Your task to perform on an android device: turn off location Image 0: 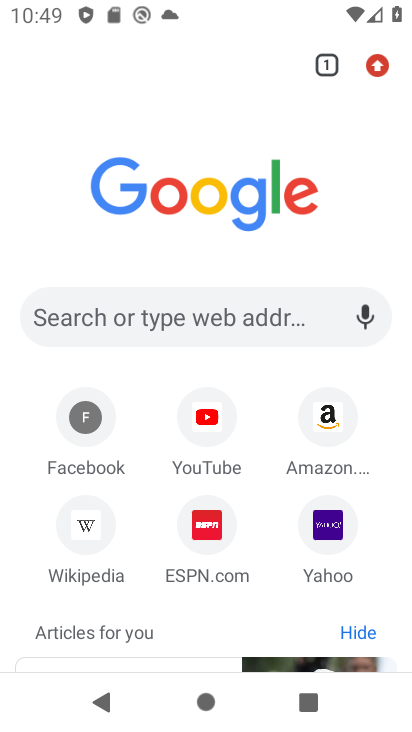
Step 0: press home button
Your task to perform on an android device: turn off location Image 1: 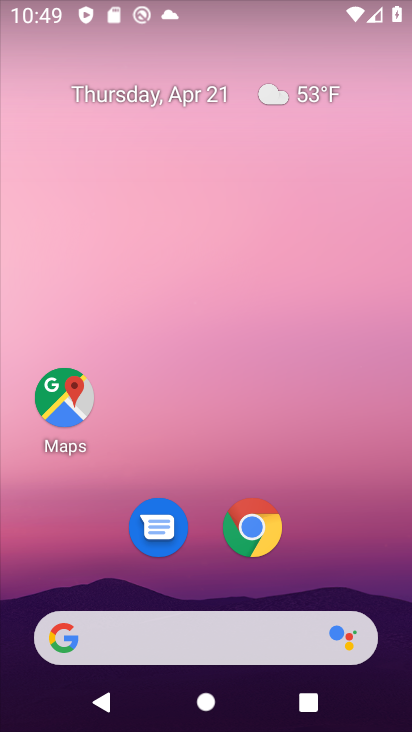
Step 1: drag from (340, 550) to (351, 164)
Your task to perform on an android device: turn off location Image 2: 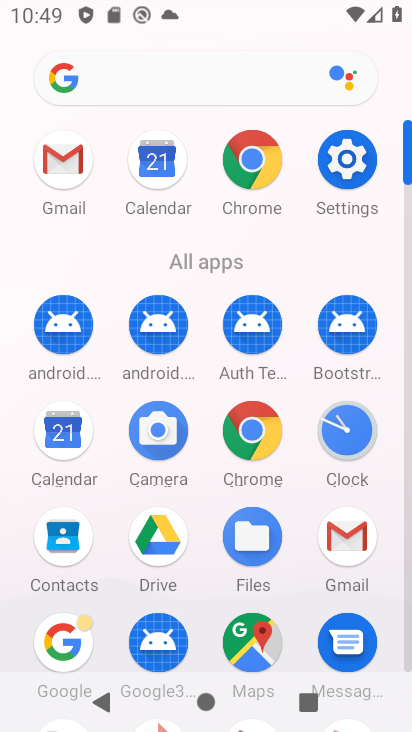
Step 2: click (368, 157)
Your task to perform on an android device: turn off location Image 3: 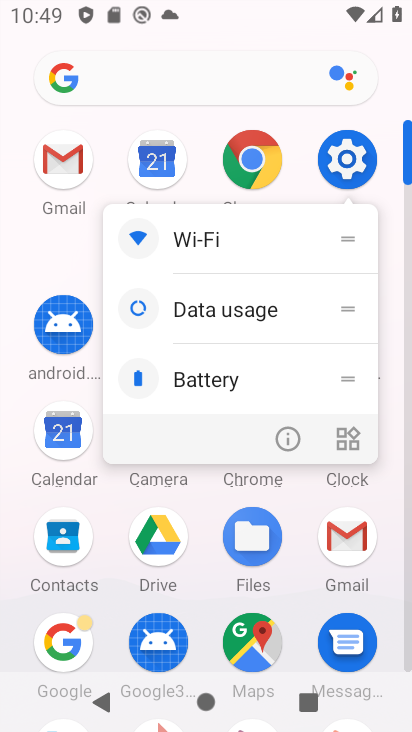
Step 3: click (368, 157)
Your task to perform on an android device: turn off location Image 4: 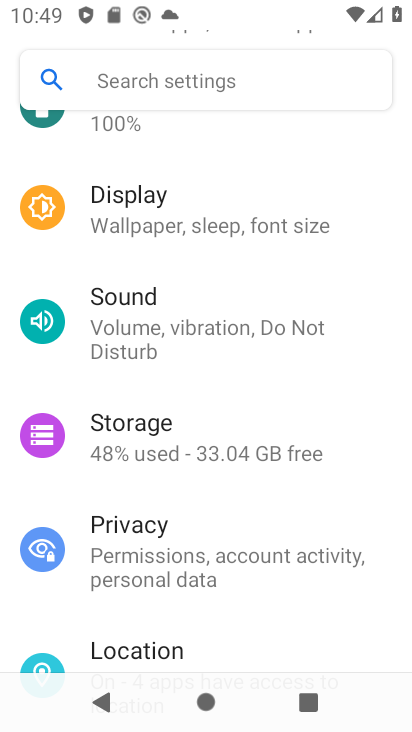
Step 4: drag from (365, 273) to (363, 418)
Your task to perform on an android device: turn off location Image 5: 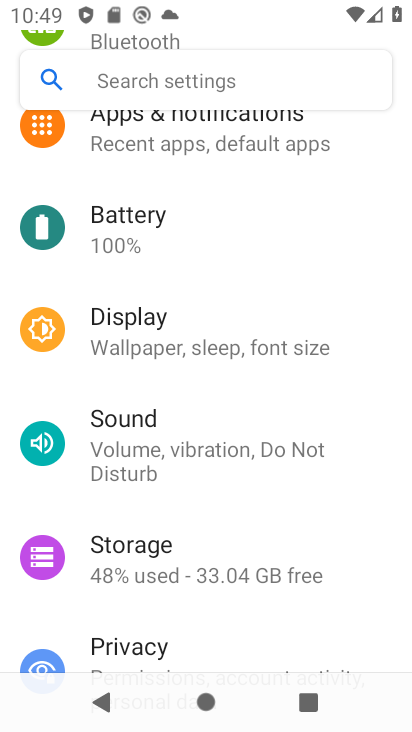
Step 5: drag from (368, 261) to (363, 409)
Your task to perform on an android device: turn off location Image 6: 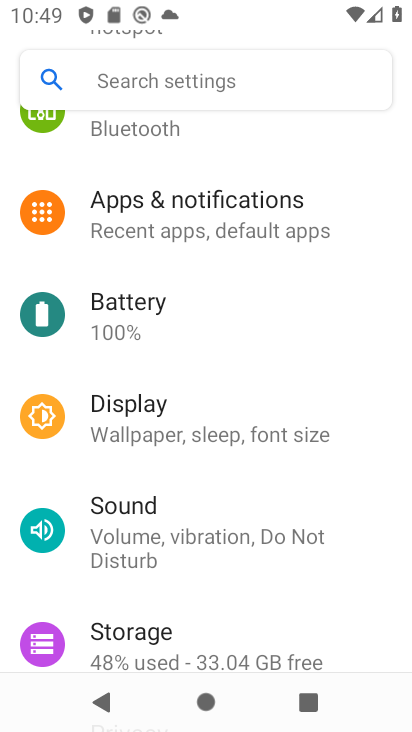
Step 6: drag from (355, 239) to (360, 452)
Your task to perform on an android device: turn off location Image 7: 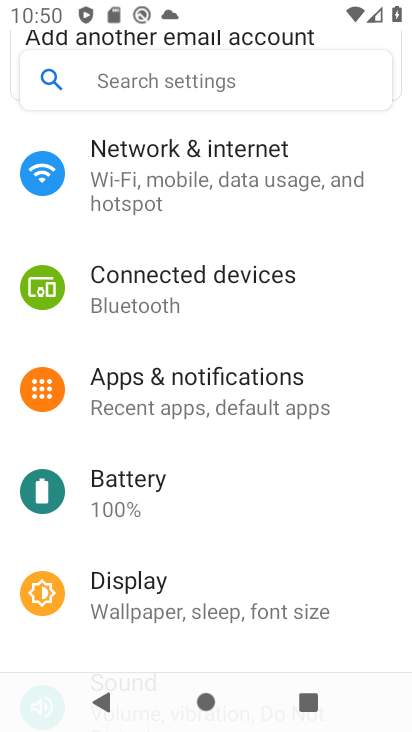
Step 7: drag from (357, 506) to (353, 293)
Your task to perform on an android device: turn off location Image 8: 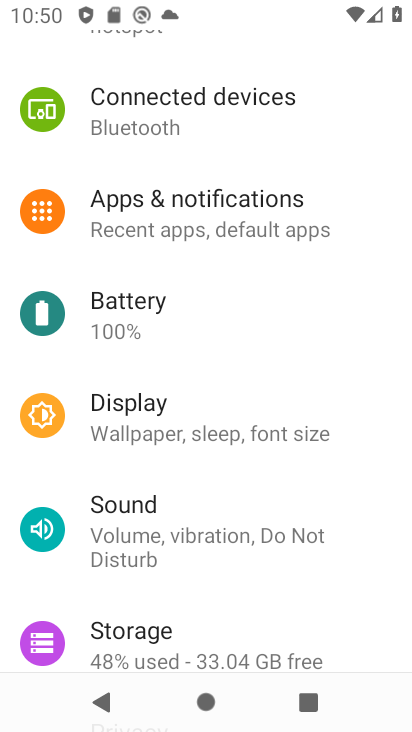
Step 8: drag from (362, 589) to (334, 396)
Your task to perform on an android device: turn off location Image 9: 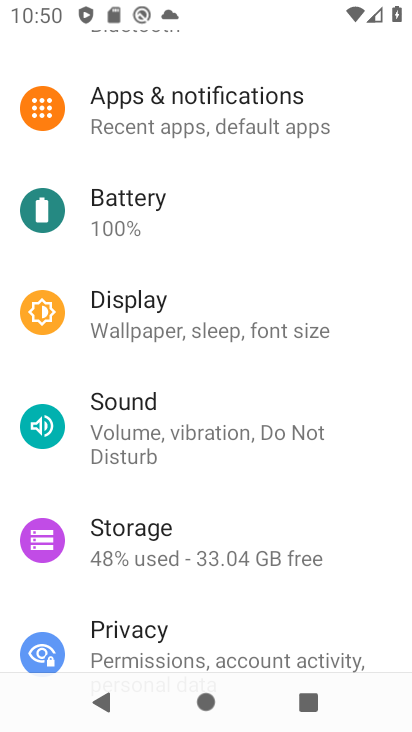
Step 9: drag from (357, 549) to (351, 331)
Your task to perform on an android device: turn off location Image 10: 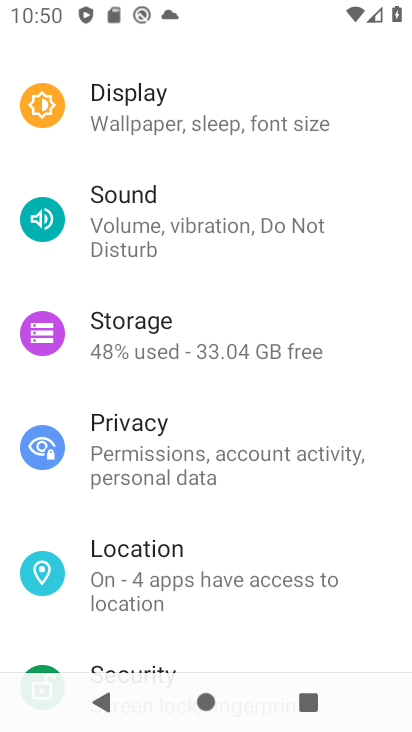
Step 10: drag from (367, 609) to (363, 390)
Your task to perform on an android device: turn off location Image 11: 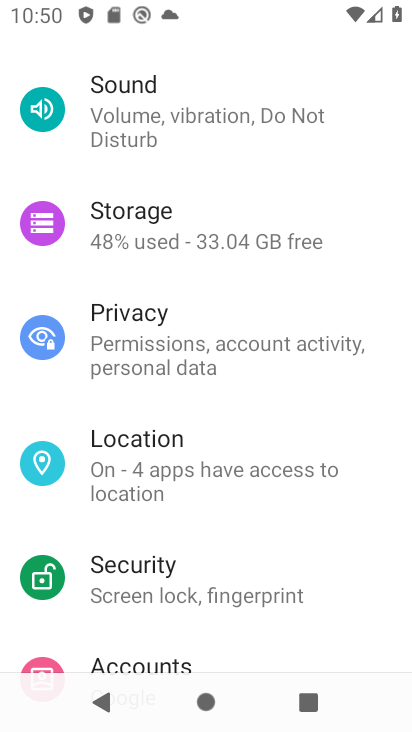
Step 11: click (156, 467)
Your task to perform on an android device: turn off location Image 12: 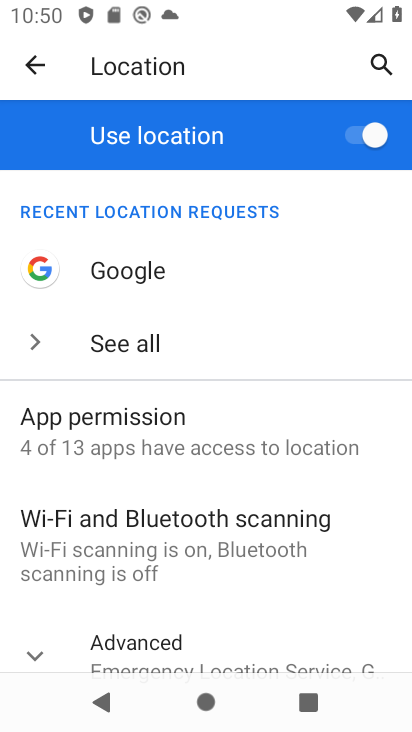
Step 12: click (350, 132)
Your task to perform on an android device: turn off location Image 13: 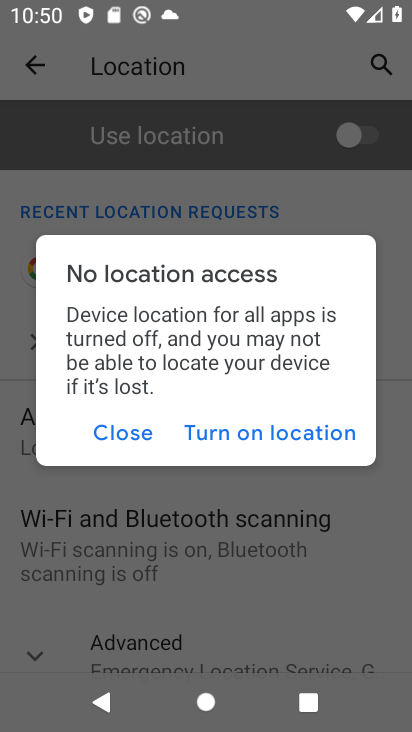
Step 13: task complete